Your task to perform on an android device: When is my next meeting? Image 0: 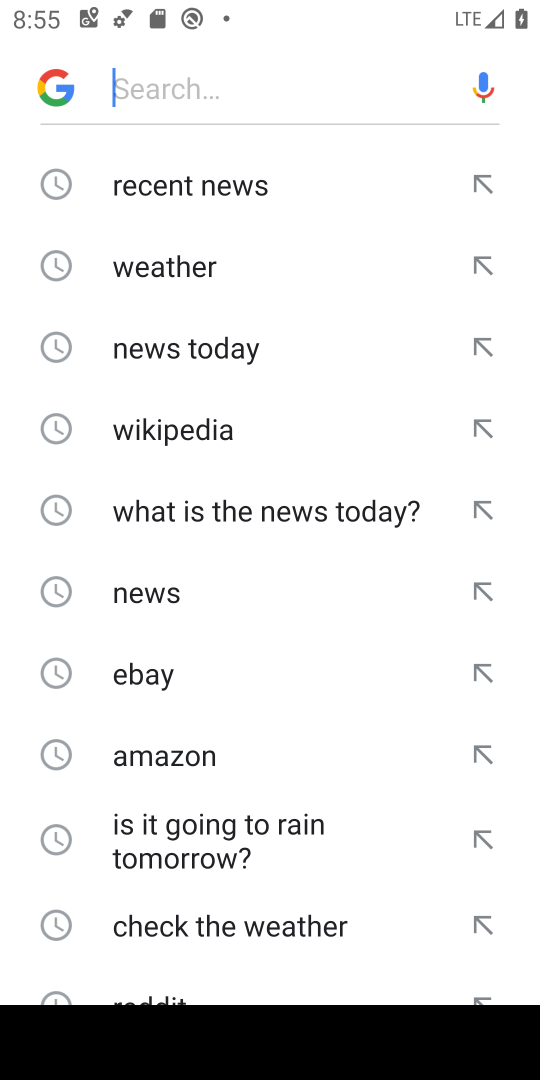
Step 0: press home button
Your task to perform on an android device: When is my next meeting? Image 1: 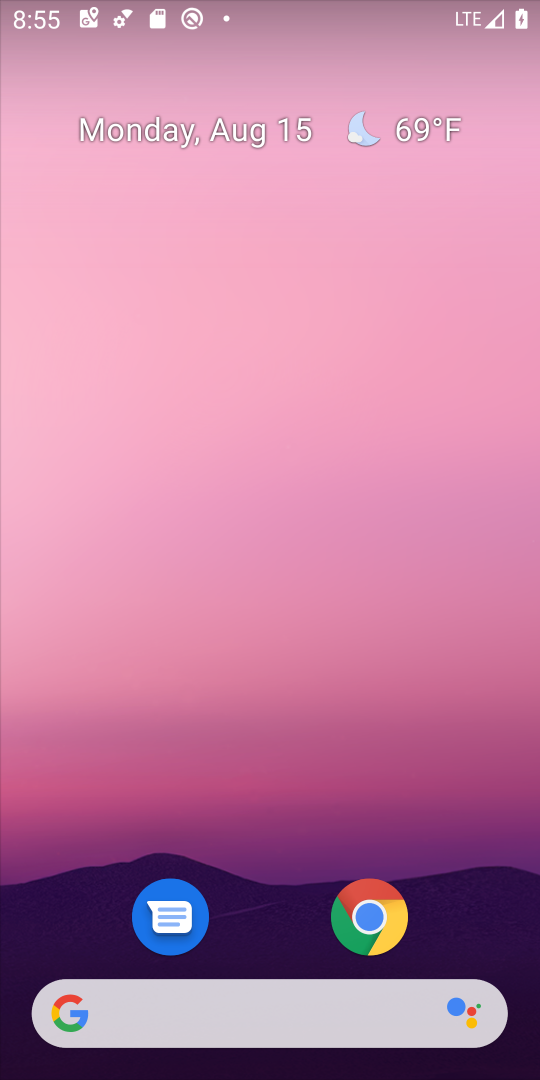
Step 1: drag from (252, 870) to (315, 0)
Your task to perform on an android device: When is my next meeting? Image 2: 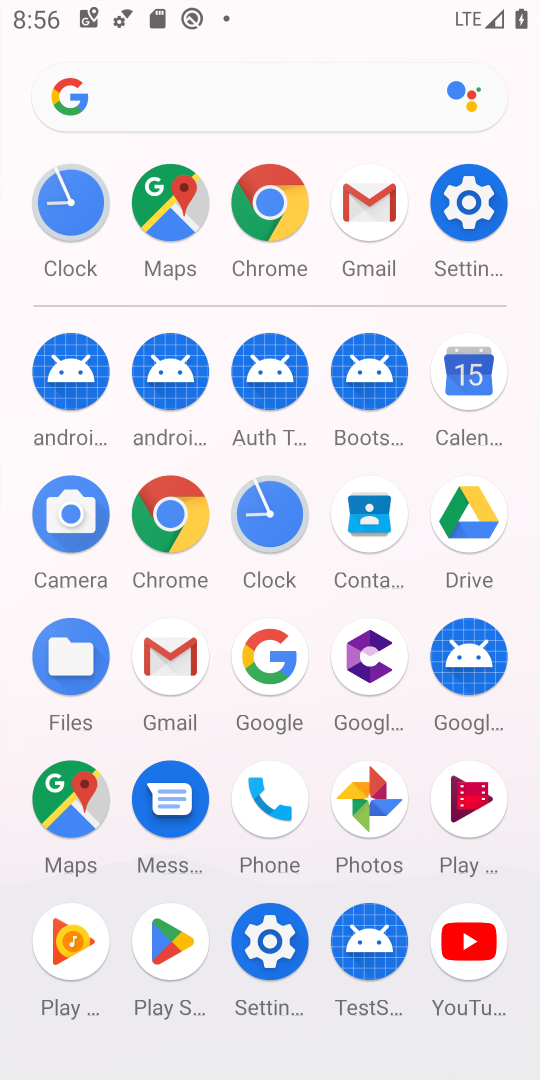
Step 2: click (477, 371)
Your task to perform on an android device: When is my next meeting? Image 3: 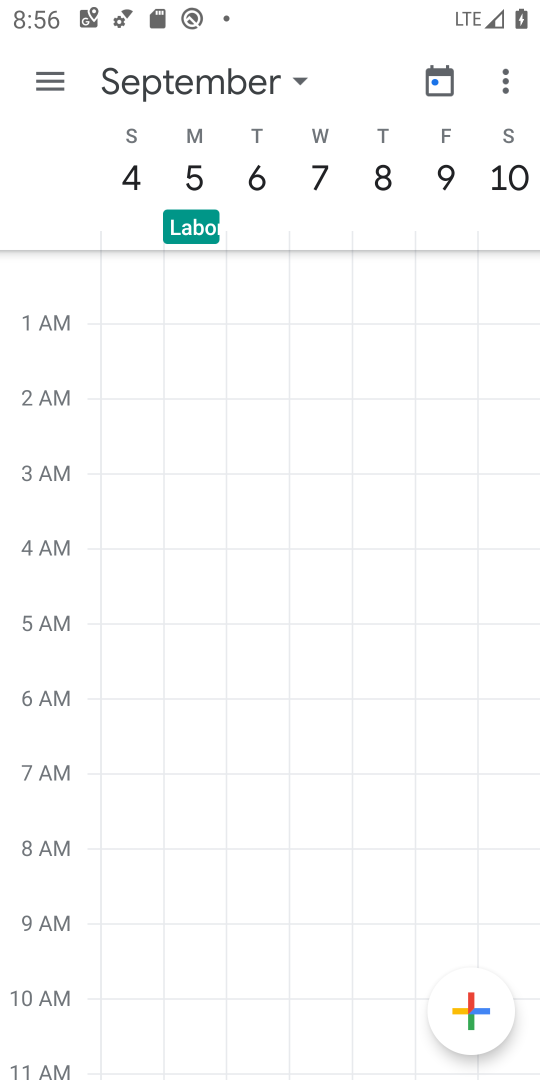
Step 3: click (189, 165)
Your task to perform on an android device: When is my next meeting? Image 4: 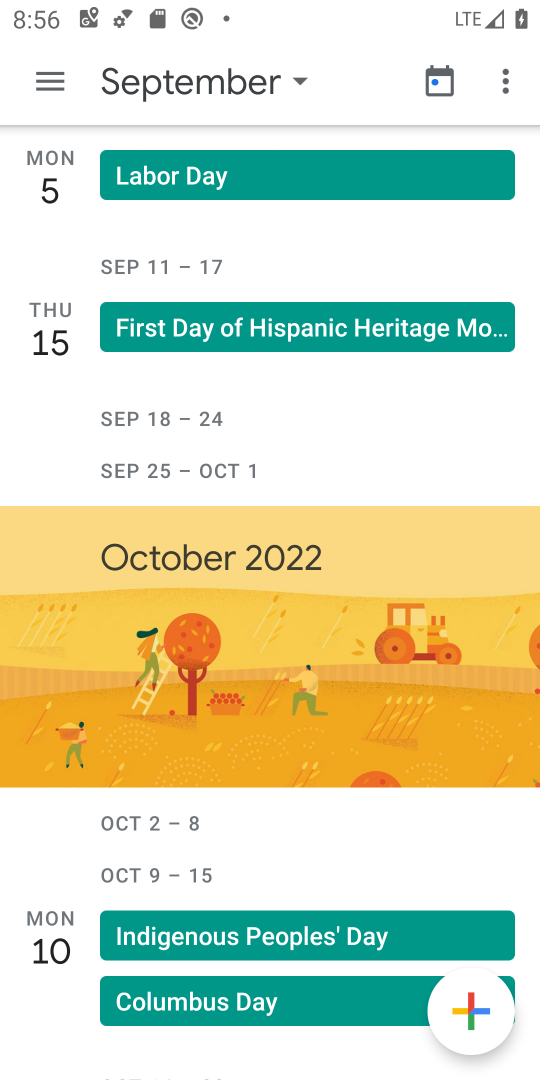
Step 4: click (50, 183)
Your task to perform on an android device: When is my next meeting? Image 5: 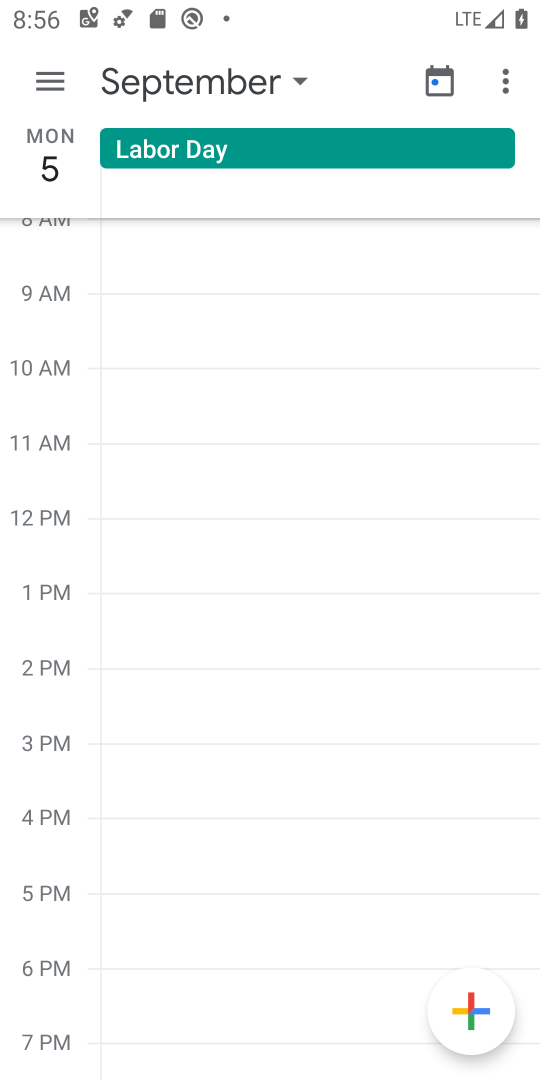
Step 5: task complete